Your task to perform on an android device: toggle pop-ups in chrome Image 0: 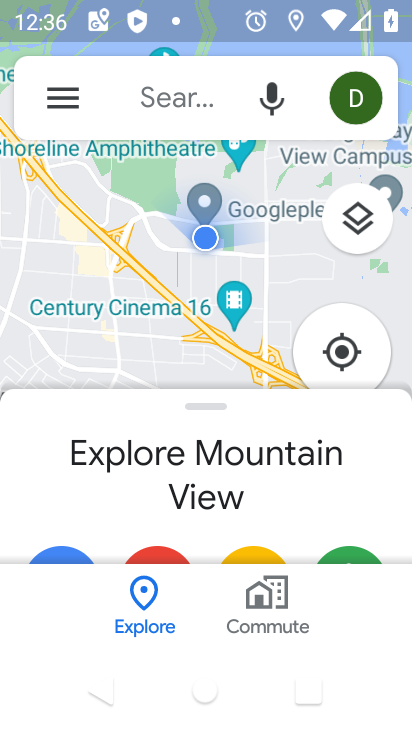
Step 0: press home button
Your task to perform on an android device: toggle pop-ups in chrome Image 1: 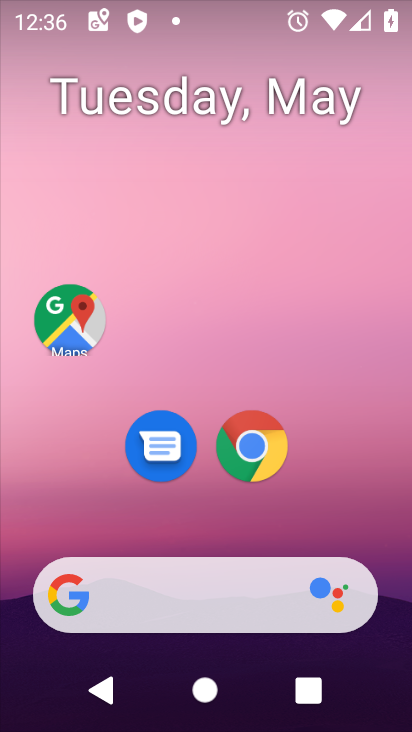
Step 1: drag from (301, 539) to (295, 227)
Your task to perform on an android device: toggle pop-ups in chrome Image 2: 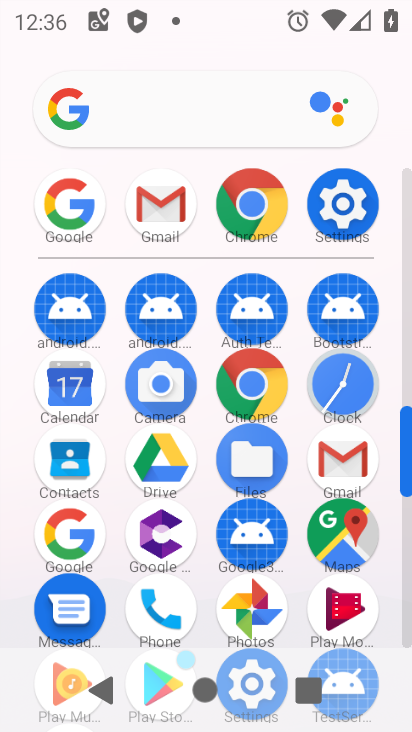
Step 2: click (243, 374)
Your task to perform on an android device: toggle pop-ups in chrome Image 3: 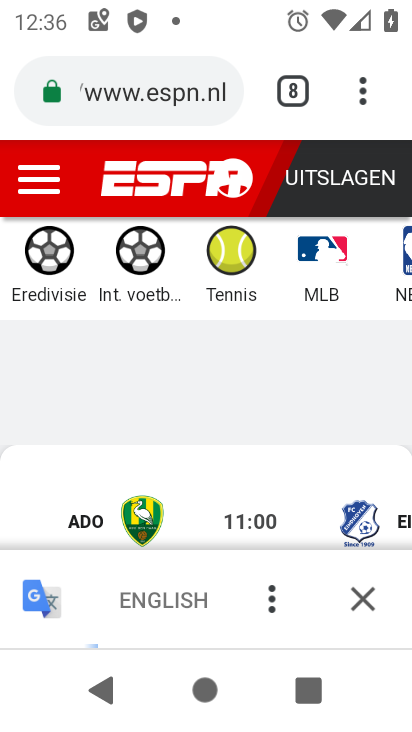
Step 3: click (360, 87)
Your task to perform on an android device: toggle pop-ups in chrome Image 4: 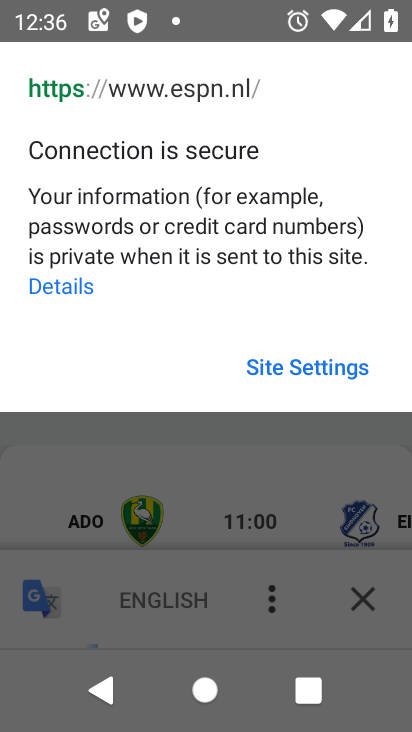
Step 4: press back button
Your task to perform on an android device: toggle pop-ups in chrome Image 5: 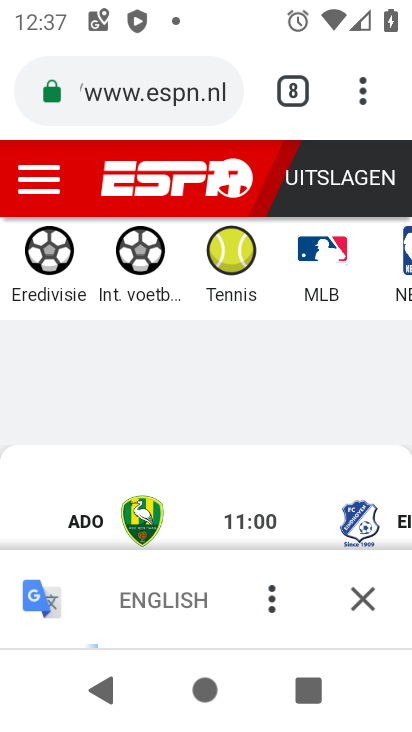
Step 5: click (372, 83)
Your task to perform on an android device: toggle pop-ups in chrome Image 6: 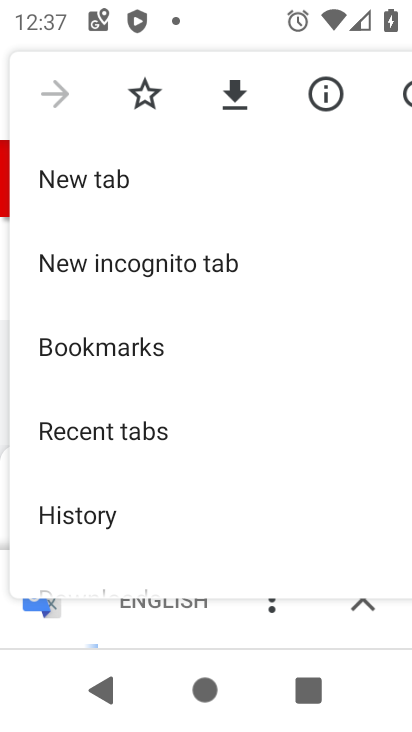
Step 6: drag from (238, 528) to (298, 171)
Your task to perform on an android device: toggle pop-ups in chrome Image 7: 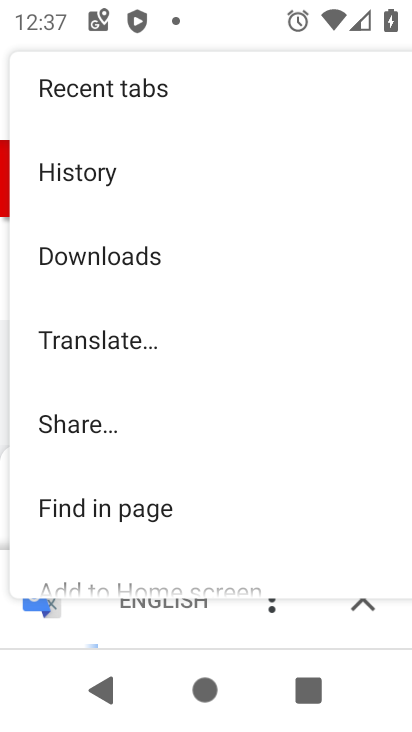
Step 7: drag from (167, 496) to (249, 202)
Your task to perform on an android device: toggle pop-ups in chrome Image 8: 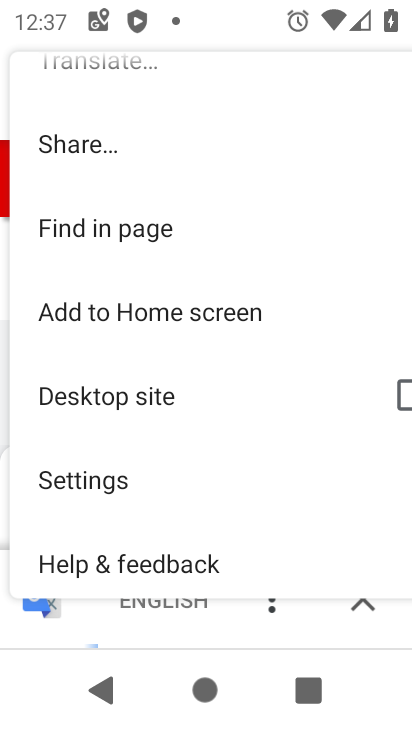
Step 8: click (121, 486)
Your task to perform on an android device: toggle pop-ups in chrome Image 9: 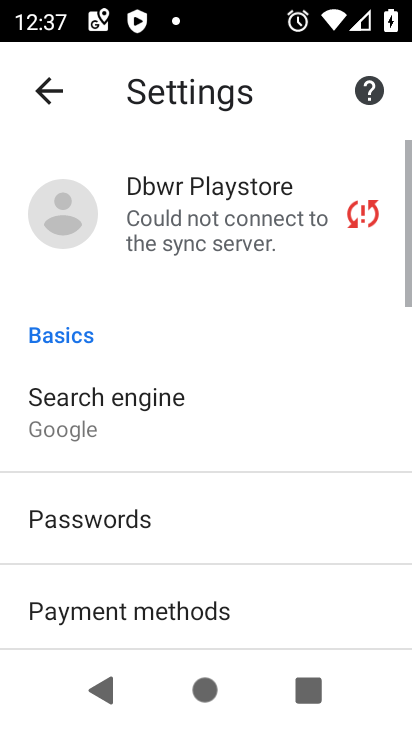
Step 9: drag from (164, 550) to (264, 214)
Your task to perform on an android device: toggle pop-ups in chrome Image 10: 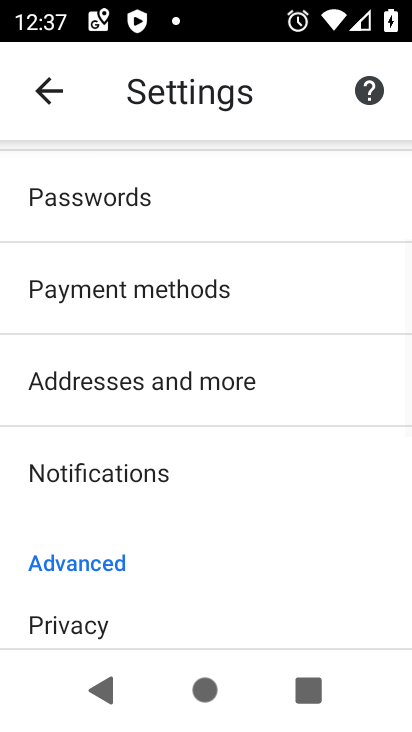
Step 10: drag from (189, 553) to (294, 192)
Your task to perform on an android device: toggle pop-ups in chrome Image 11: 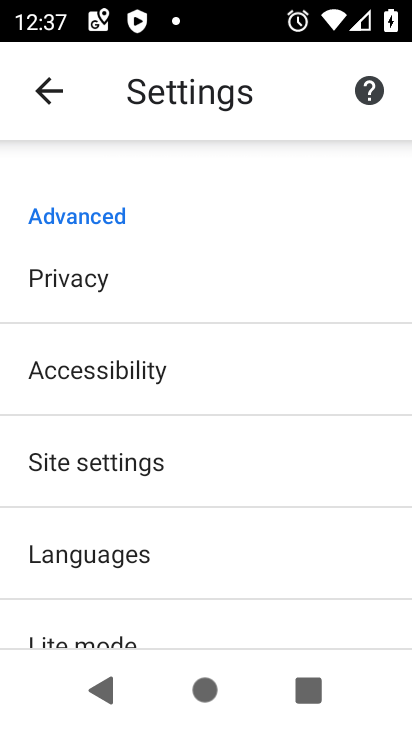
Step 11: drag from (192, 533) to (273, 148)
Your task to perform on an android device: toggle pop-ups in chrome Image 12: 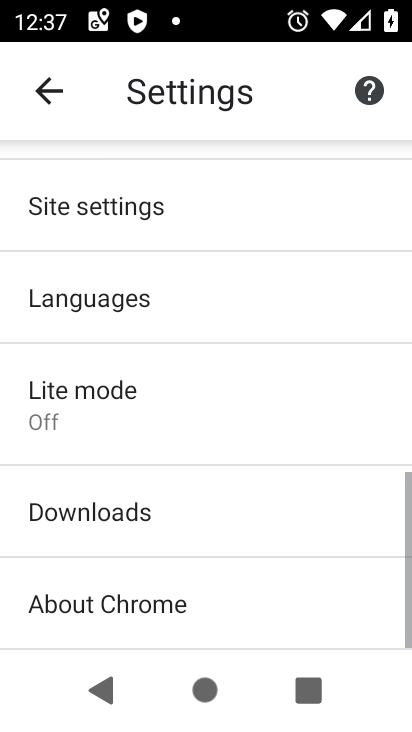
Step 12: drag from (178, 506) to (245, 171)
Your task to perform on an android device: toggle pop-ups in chrome Image 13: 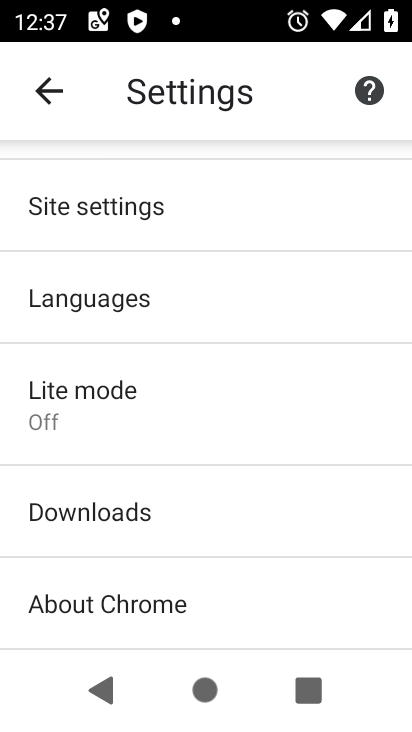
Step 13: click (140, 205)
Your task to perform on an android device: toggle pop-ups in chrome Image 14: 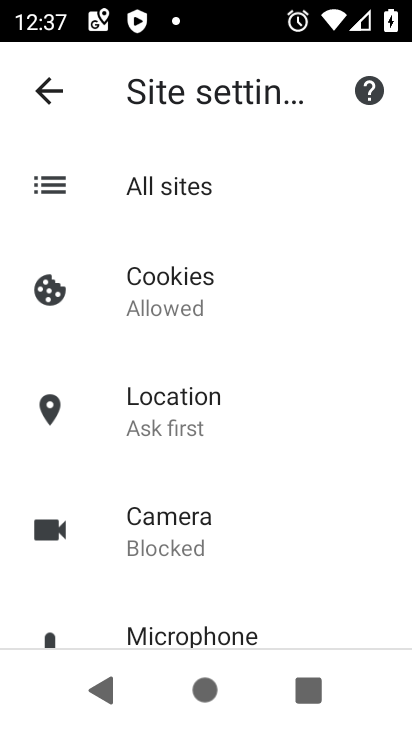
Step 14: drag from (207, 497) to (293, 137)
Your task to perform on an android device: toggle pop-ups in chrome Image 15: 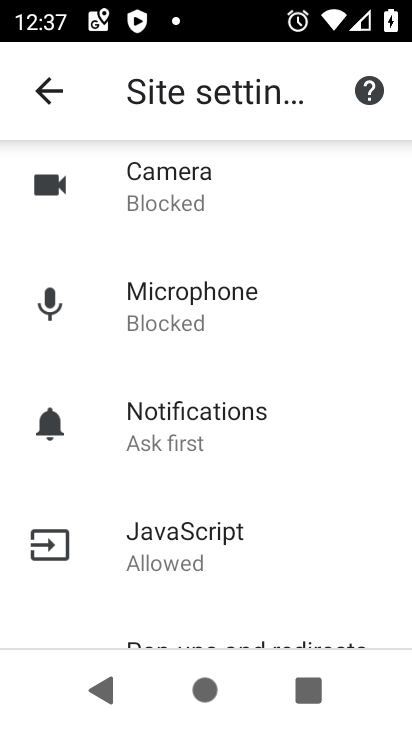
Step 15: drag from (175, 565) to (269, 250)
Your task to perform on an android device: toggle pop-ups in chrome Image 16: 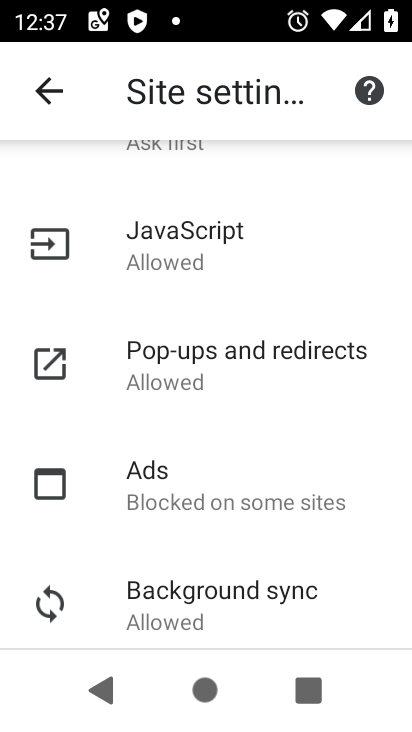
Step 16: click (182, 399)
Your task to perform on an android device: toggle pop-ups in chrome Image 17: 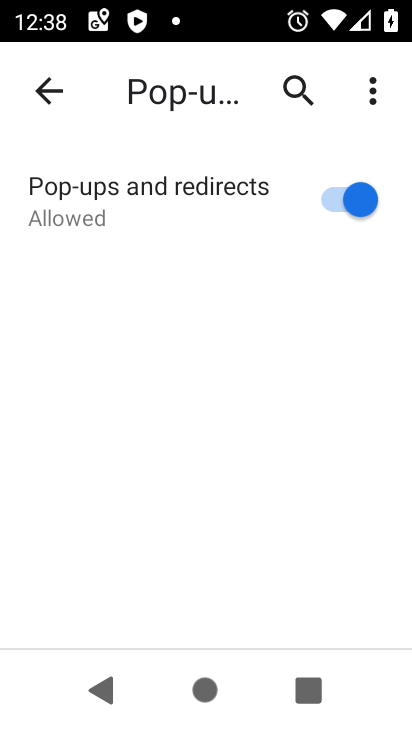
Step 17: task complete